Your task to perform on an android device: toggle data saver in the chrome app Image 0: 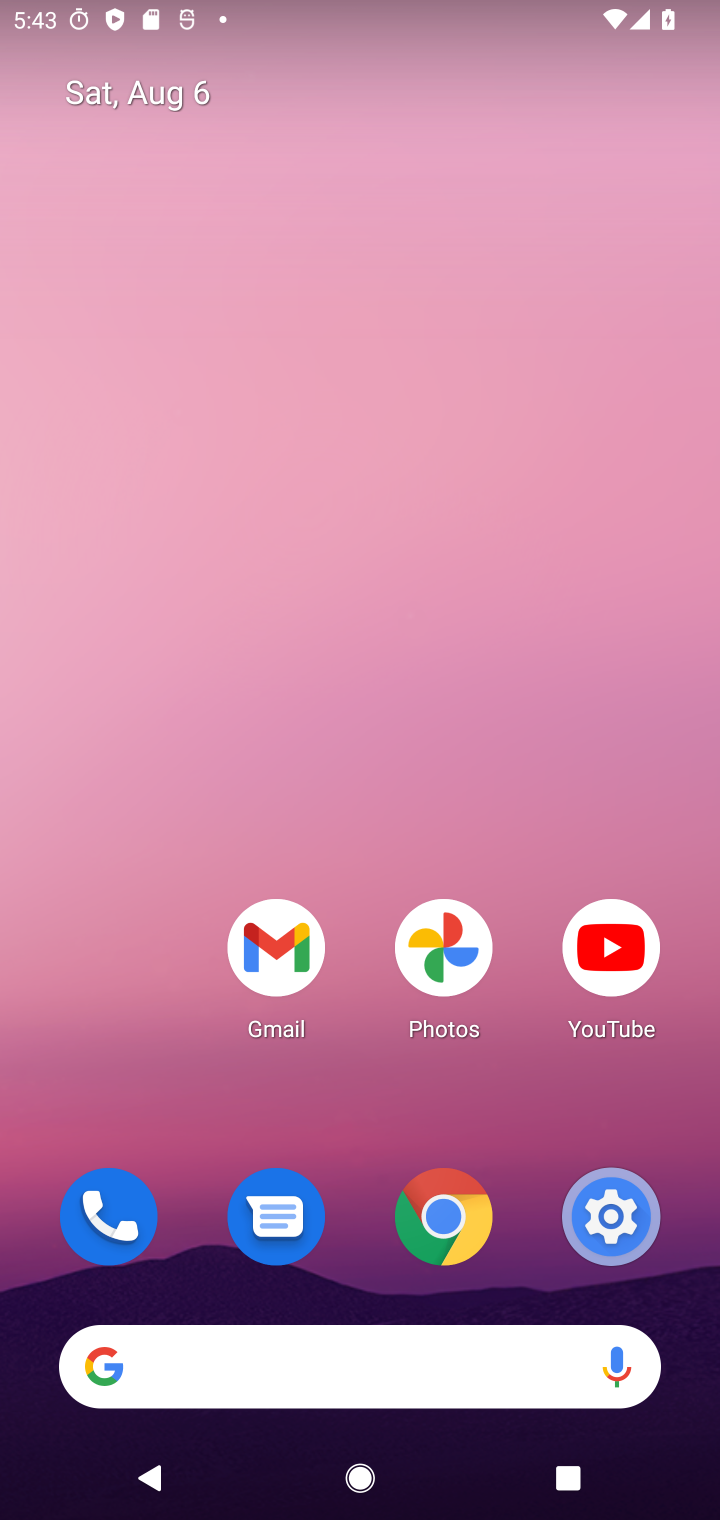
Step 0: drag from (540, 1050) to (498, 102)
Your task to perform on an android device: toggle data saver in the chrome app Image 1: 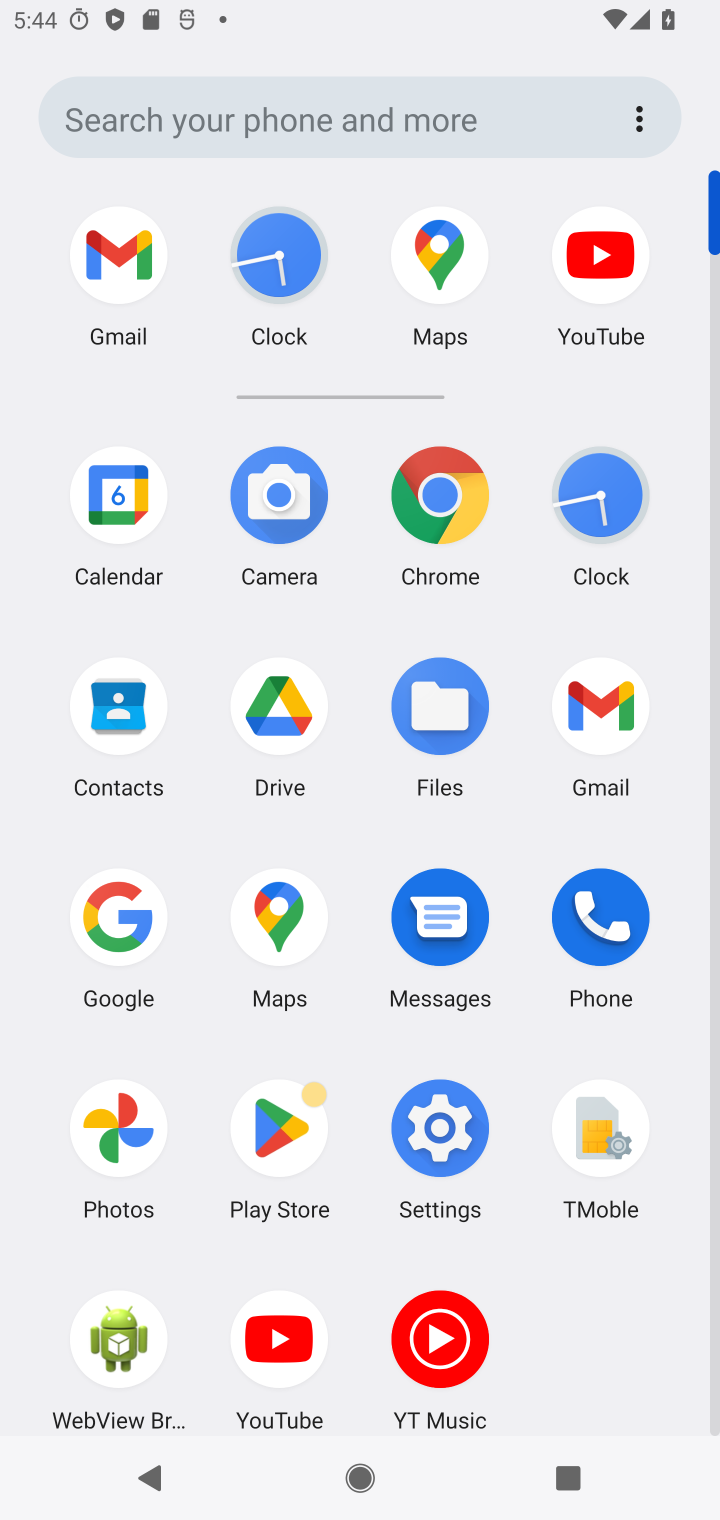
Step 1: click (439, 494)
Your task to perform on an android device: toggle data saver in the chrome app Image 2: 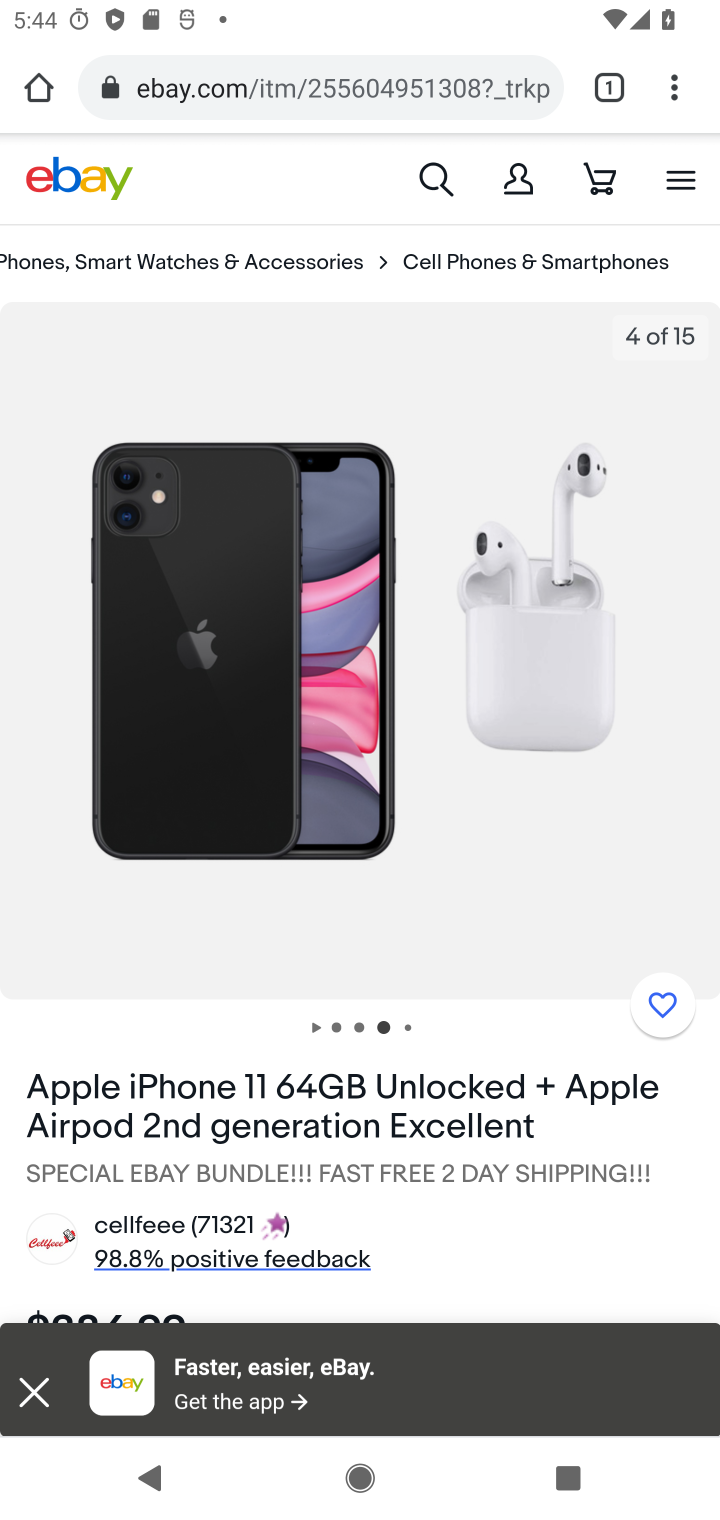
Step 2: drag from (670, 65) to (419, 1094)
Your task to perform on an android device: toggle data saver in the chrome app Image 3: 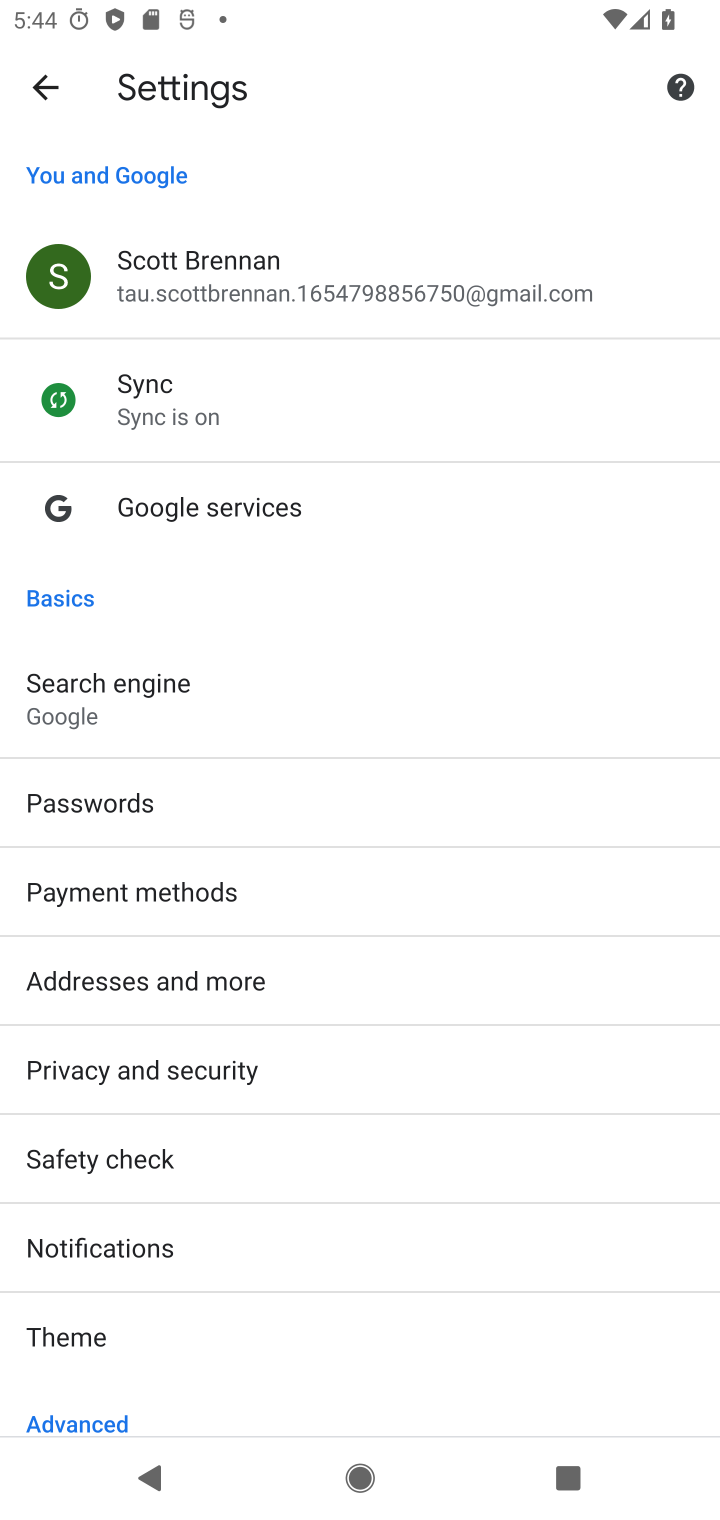
Step 3: drag from (255, 1322) to (366, 255)
Your task to perform on an android device: toggle data saver in the chrome app Image 4: 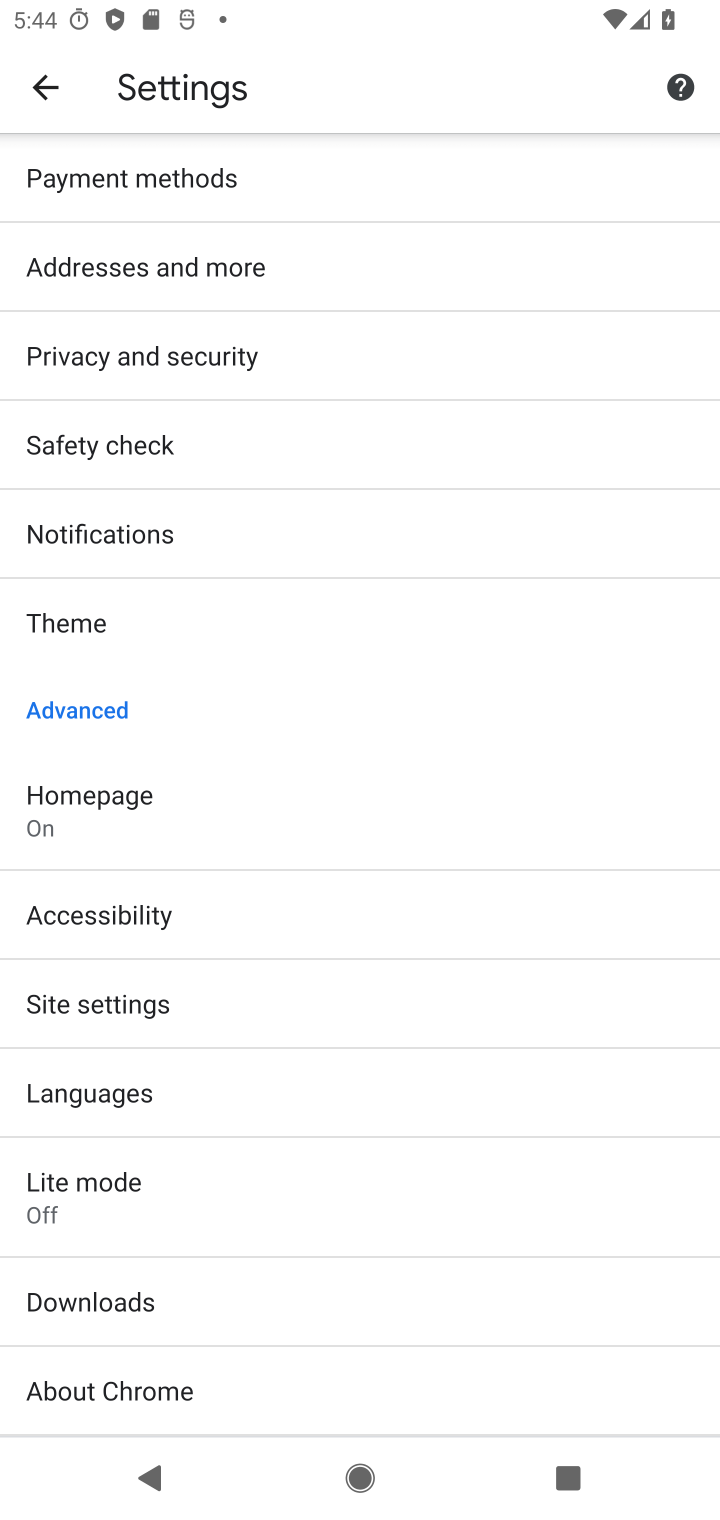
Step 4: click (123, 1183)
Your task to perform on an android device: toggle data saver in the chrome app Image 5: 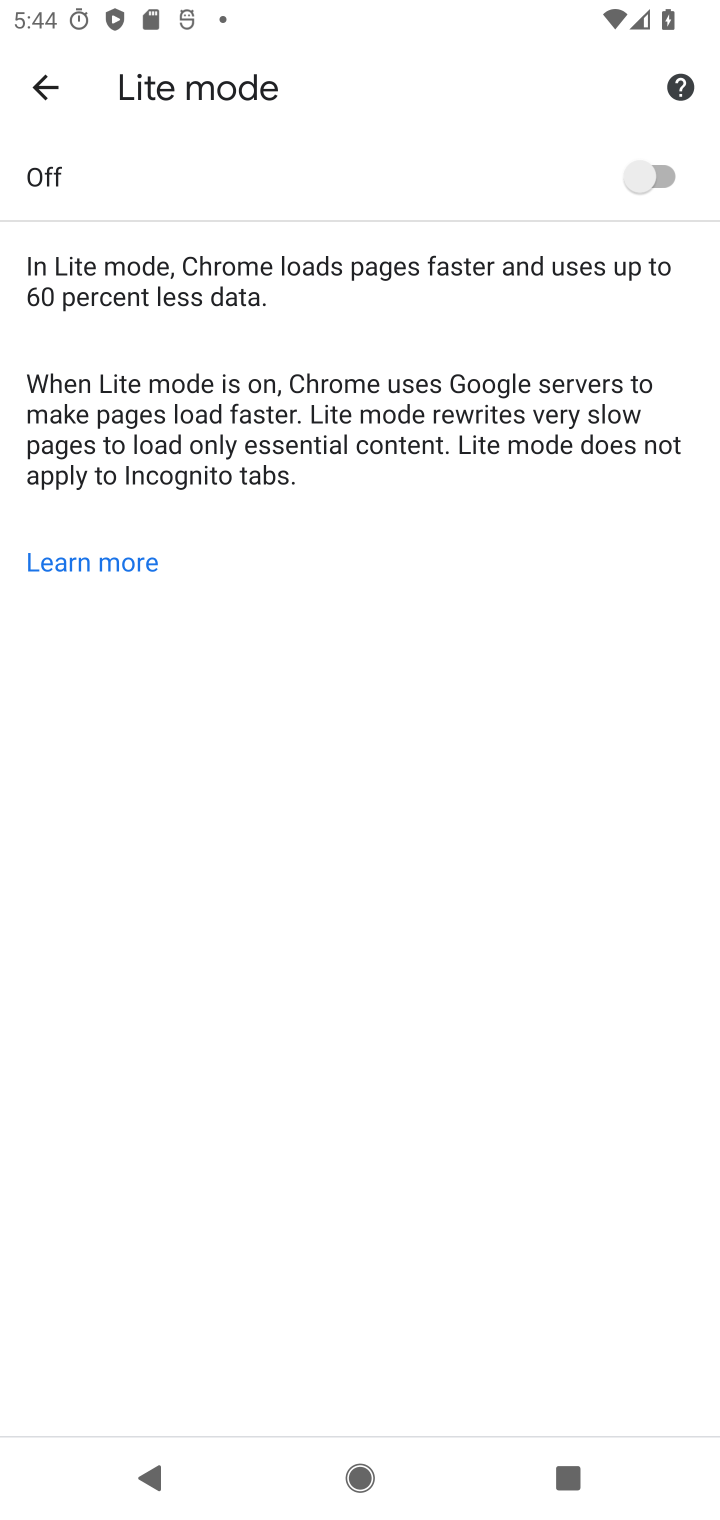
Step 5: click (637, 183)
Your task to perform on an android device: toggle data saver in the chrome app Image 6: 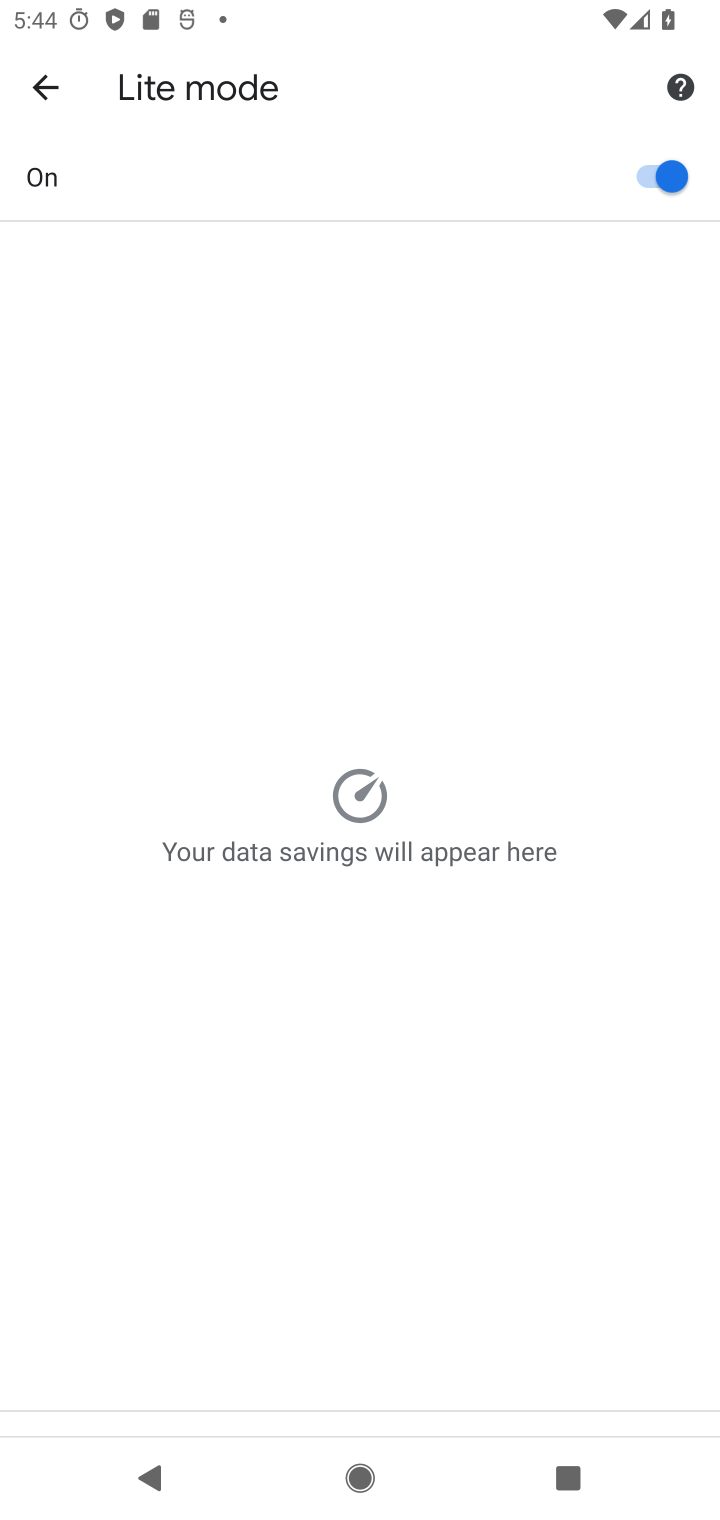
Step 6: task complete